Your task to perform on an android device: turn off picture-in-picture Image 0: 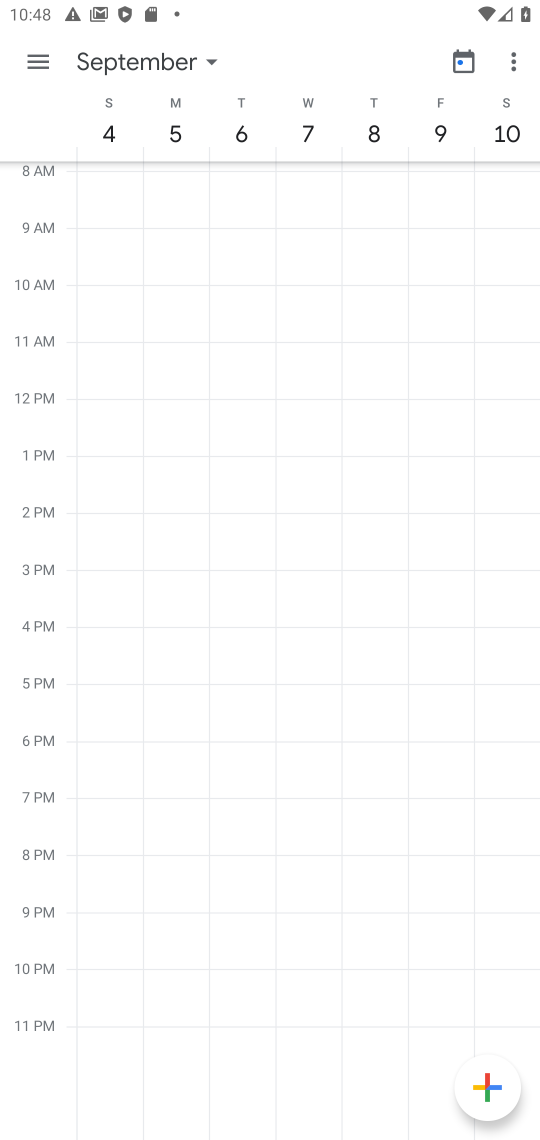
Step 0: press back button
Your task to perform on an android device: turn off picture-in-picture Image 1: 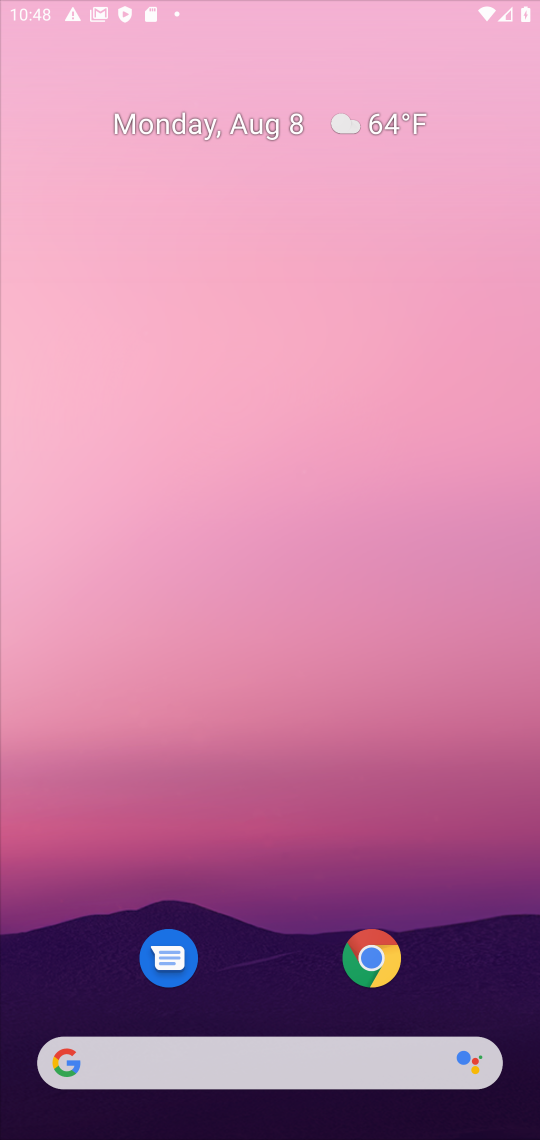
Step 1: press home button
Your task to perform on an android device: turn off picture-in-picture Image 2: 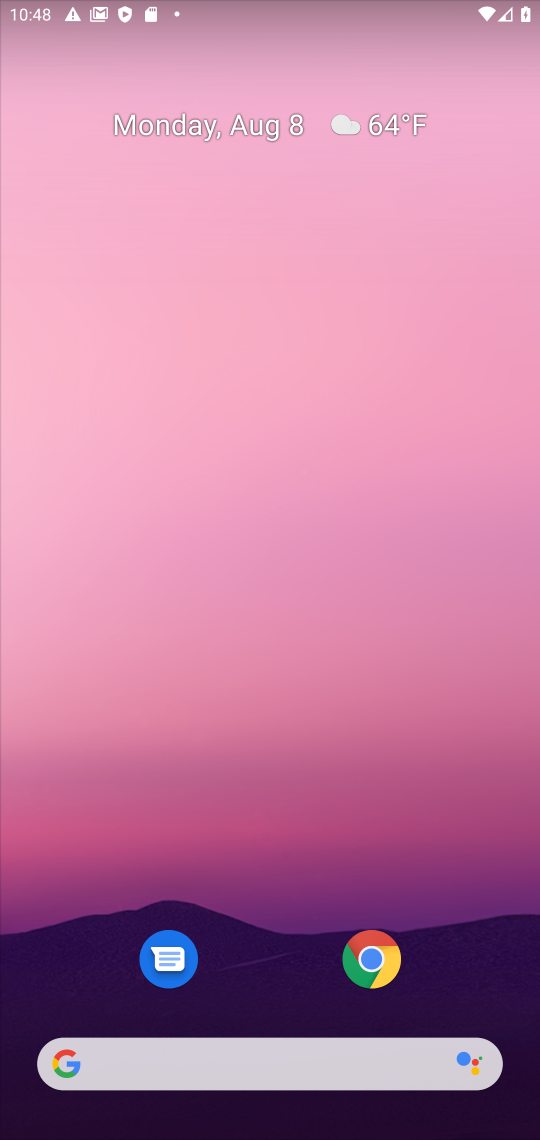
Step 2: click (387, 973)
Your task to perform on an android device: turn off picture-in-picture Image 3: 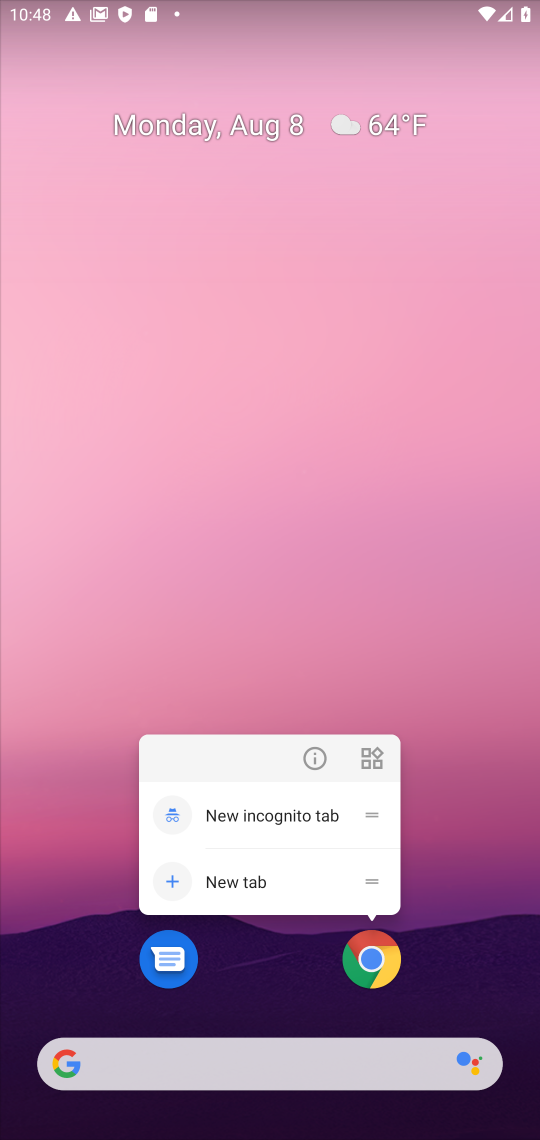
Step 3: click (318, 768)
Your task to perform on an android device: turn off picture-in-picture Image 4: 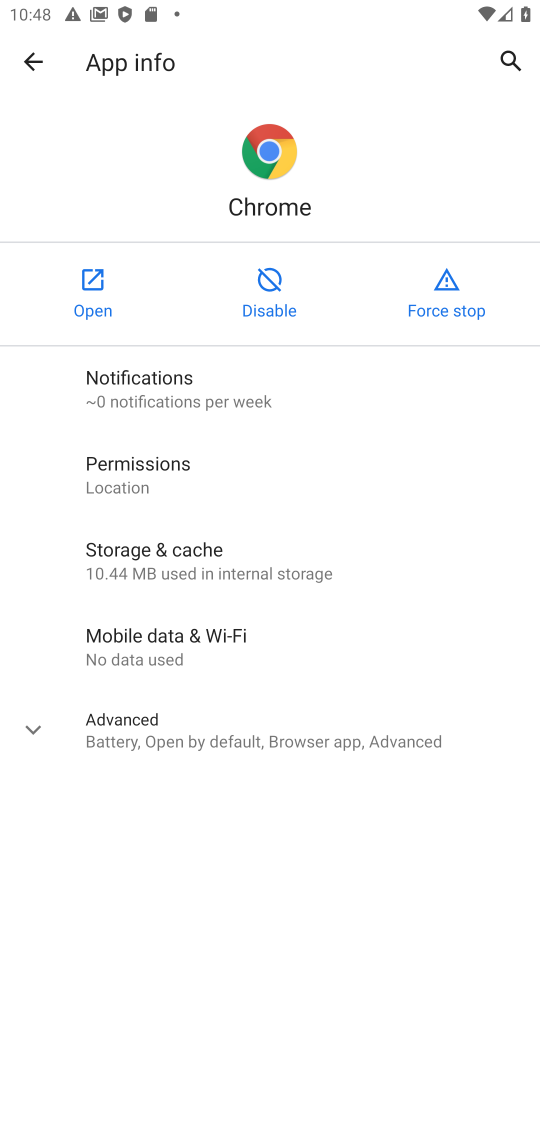
Step 4: click (299, 738)
Your task to perform on an android device: turn off picture-in-picture Image 5: 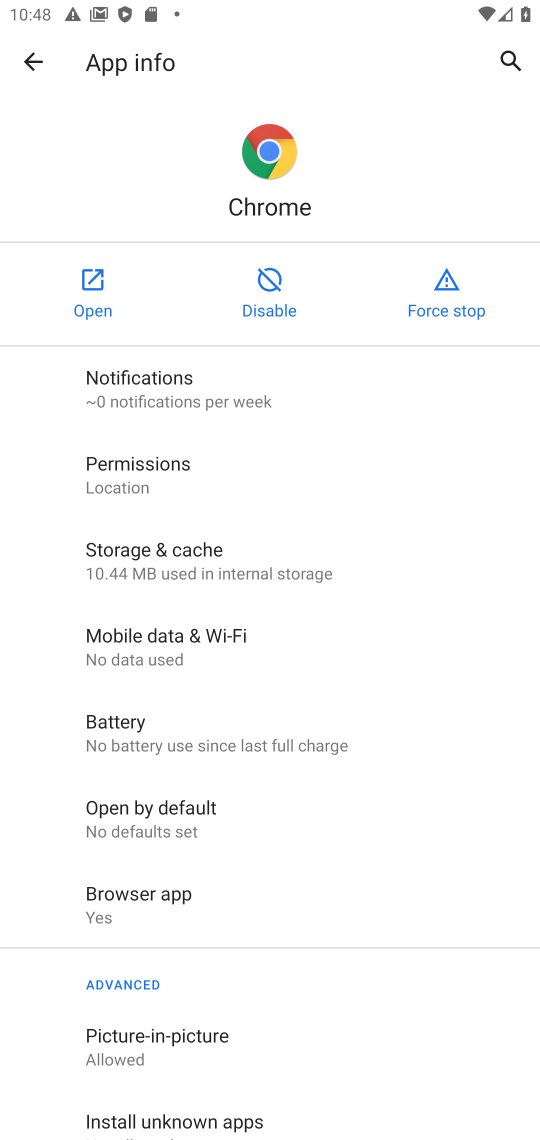
Step 5: click (322, 1051)
Your task to perform on an android device: turn off picture-in-picture Image 6: 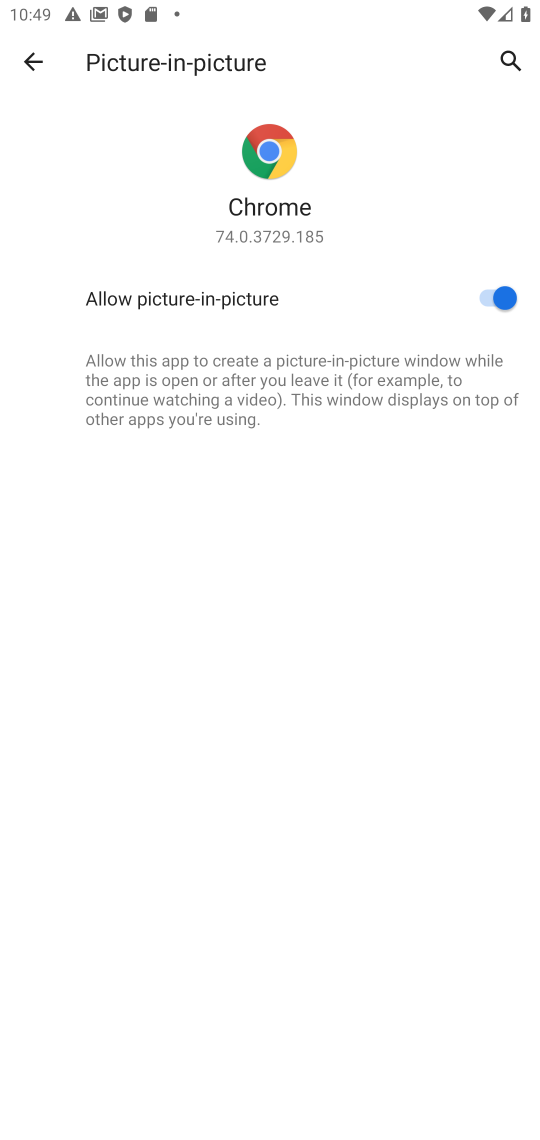
Step 6: click (496, 297)
Your task to perform on an android device: turn off picture-in-picture Image 7: 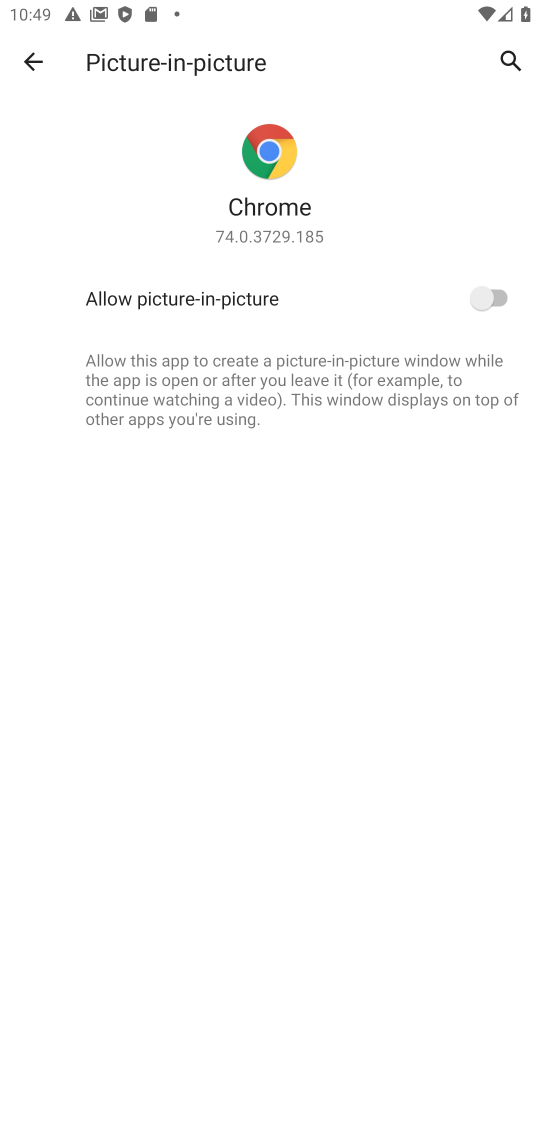
Step 7: task complete